Your task to perform on an android device: clear all cookies in the chrome app Image 0: 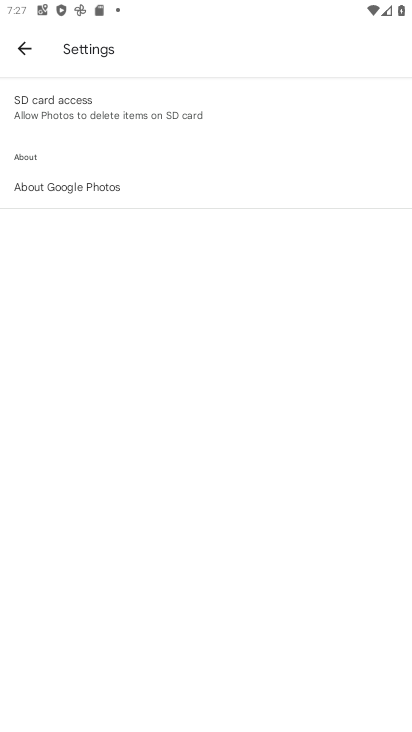
Step 0: click (275, 635)
Your task to perform on an android device: clear all cookies in the chrome app Image 1: 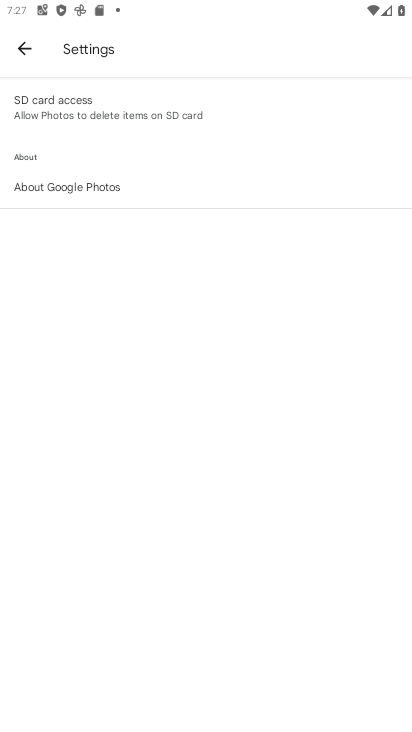
Step 1: click (16, 40)
Your task to perform on an android device: clear all cookies in the chrome app Image 2: 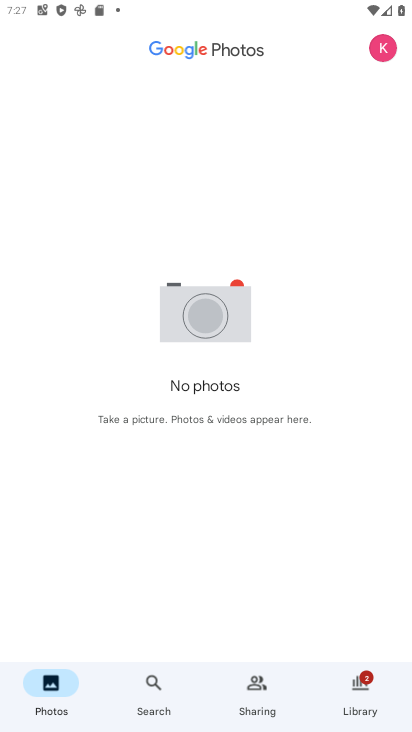
Step 2: press home button
Your task to perform on an android device: clear all cookies in the chrome app Image 3: 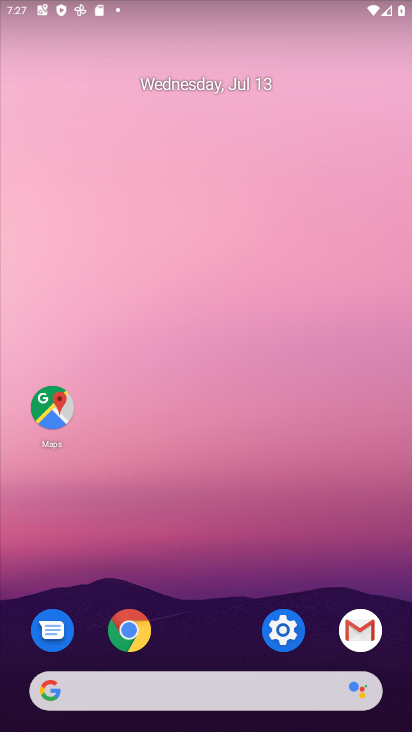
Step 3: click (146, 620)
Your task to perform on an android device: clear all cookies in the chrome app Image 4: 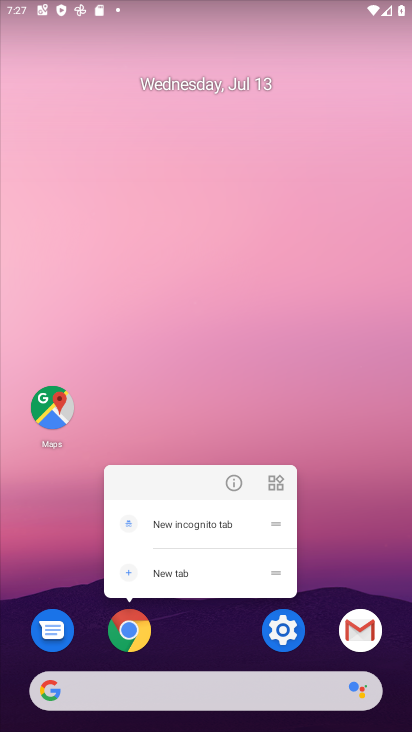
Step 4: click (130, 641)
Your task to perform on an android device: clear all cookies in the chrome app Image 5: 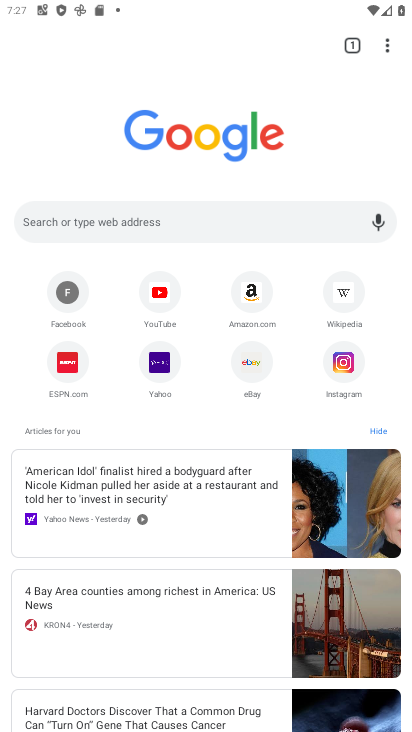
Step 5: click (386, 52)
Your task to perform on an android device: clear all cookies in the chrome app Image 6: 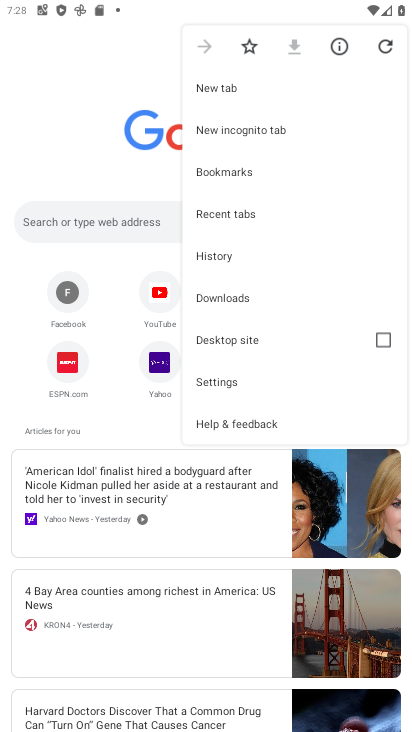
Step 6: click (220, 255)
Your task to perform on an android device: clear all cookies in the chrome app Image 7: 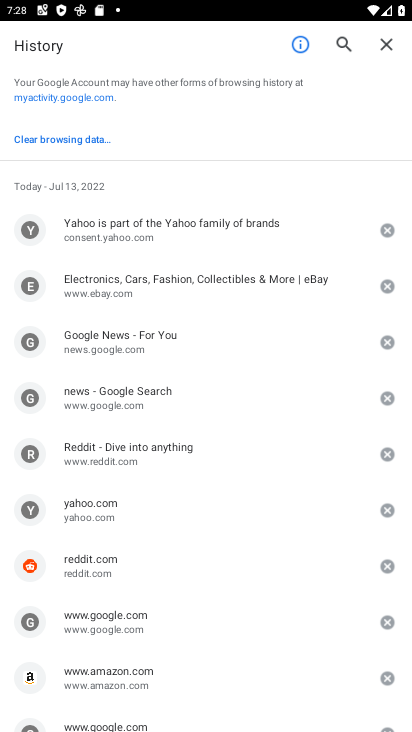
Step 7: click (48, 139)
Your task to perform on an android device: clear all cookies in the chrome app Image 8: 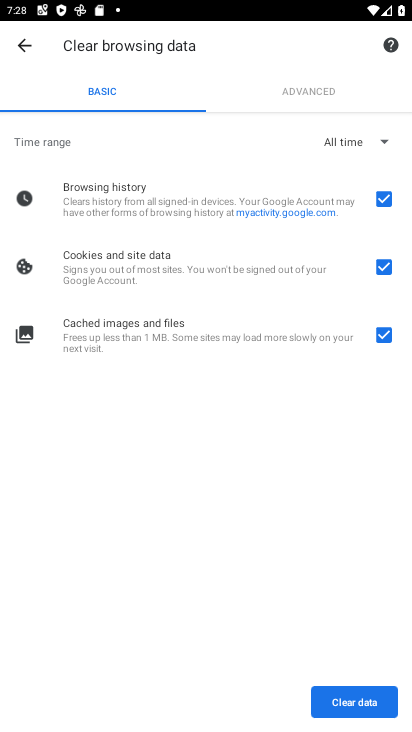
Step 8: click (365, 688)
Your task to perform on an android device: clear all cookies in the chrome app Image 9: 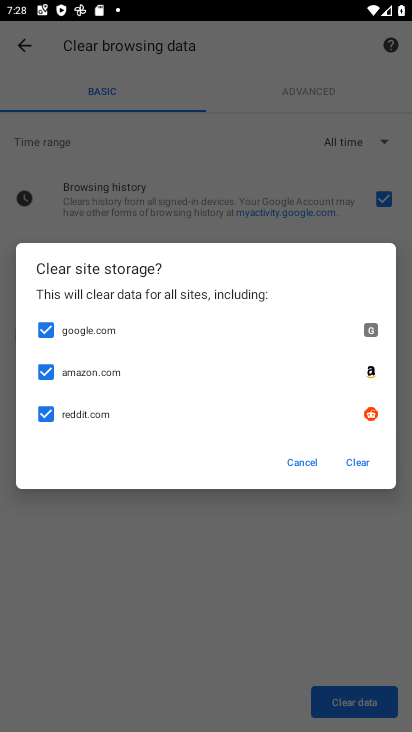
Step 9: click (348, 462)
Your task to perform on an android device: clear all cookies in the chrome app Image 10: 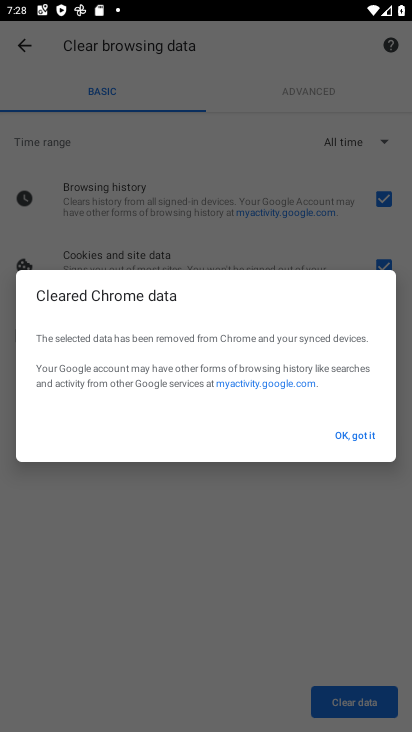
Step 10: task complete